Your task to perform on an android device: Search for seafood restaurants on Google Maps Image 0: 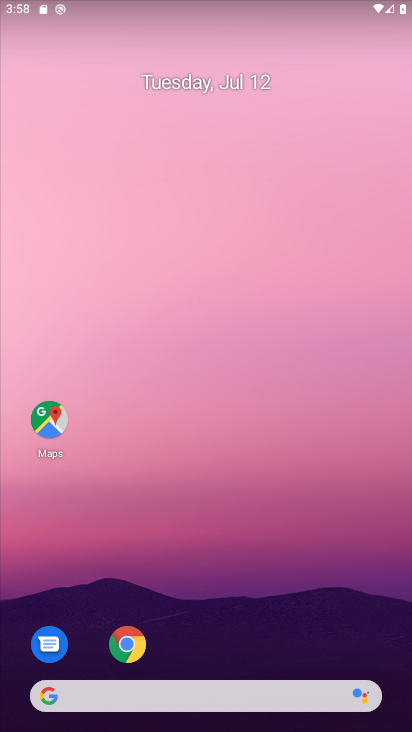
Step 0: click (42, 422)
Your task to perform on an android device: Search for seafood restaurants on Google Maps Image 1: 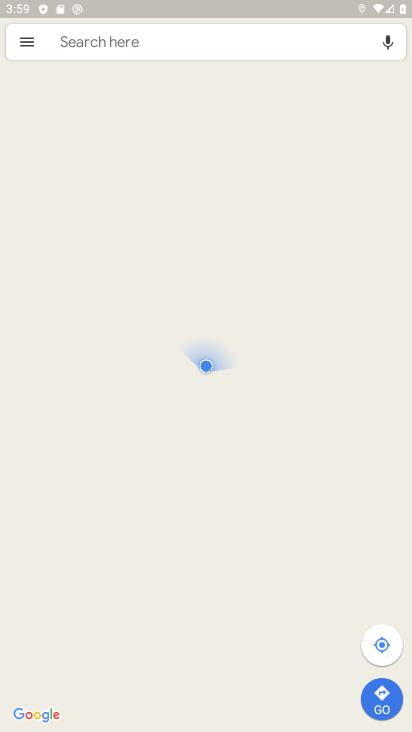
Step 1: click (229, 40)
Your task to perform on an android device: Search for seafood restaurants on Google Maps Image 2: 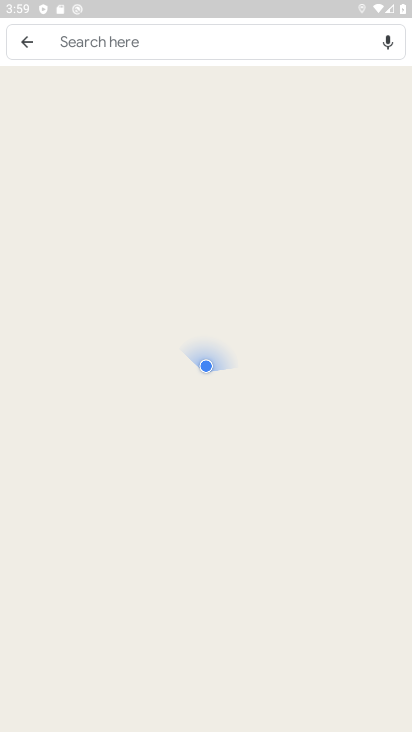
Step 2: click (230, 42)
Your task to perform on an android device: Search for seafood restaurants on Google Maps Image 3: 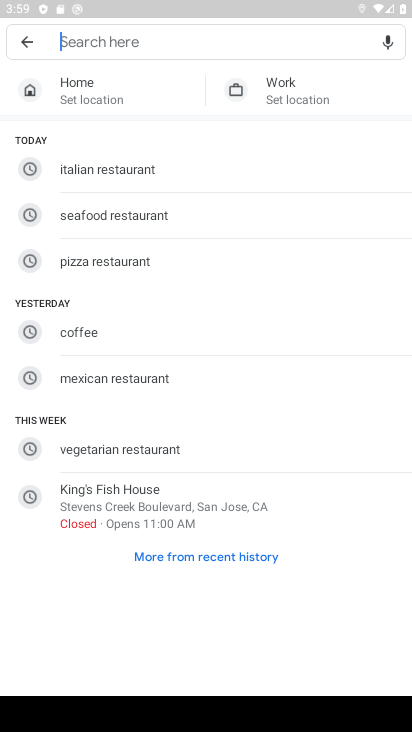
Step 3: type "seafood restaurants"
Your task to perform on an android device: Search for seafood restaurants on Google Maps Image 4: 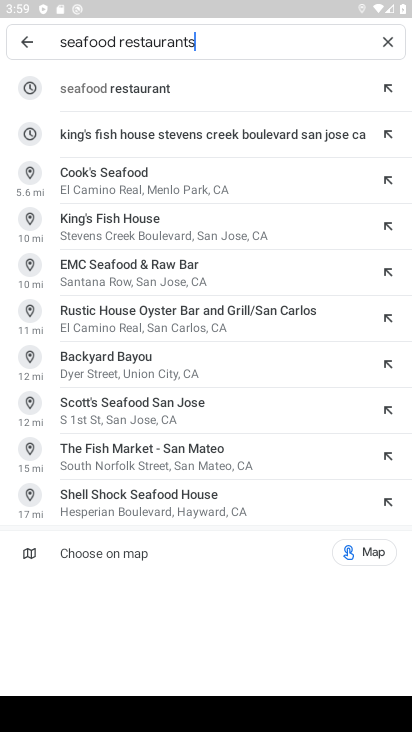
Step 4: click (225, 81)
Your task to perform on an android device: Search for seafood restaurants on Google Maps Image 5: 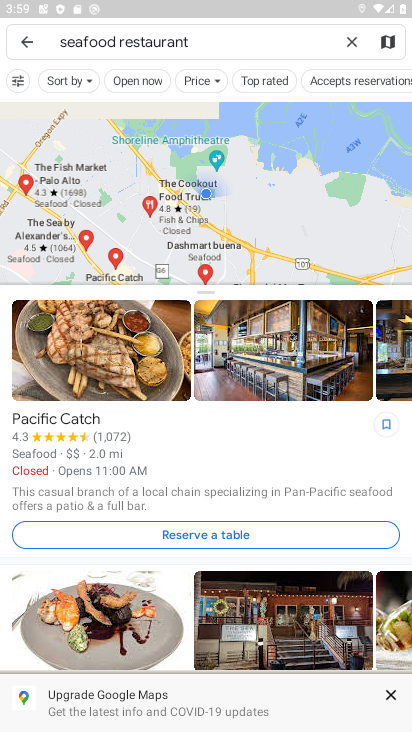
Step 5: task complete